Your task to perform on an android device: Open wifi settings Image 0: 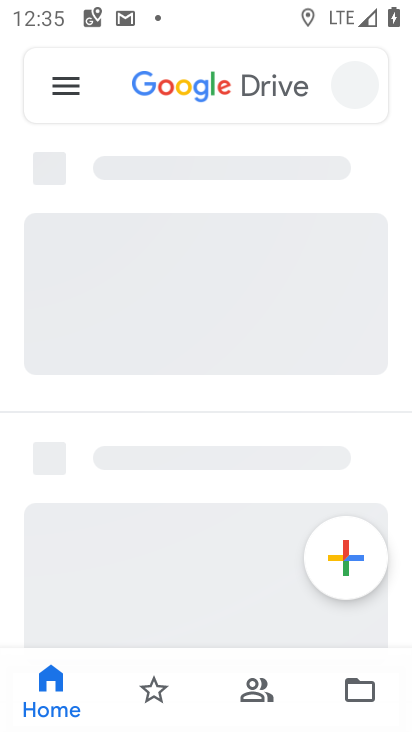
Step 0: drag from (191, 652) to (245, 476)
Your task to perform on an android device: Open wifi settings Image 1: 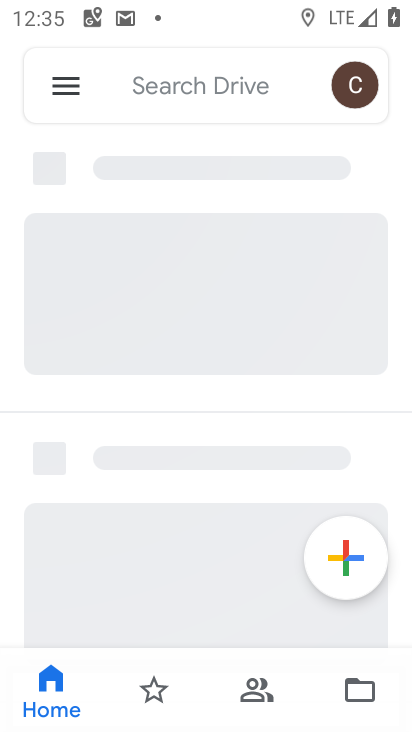
Step 1: press home button
Your task to perform on an android device: Open wifi settings Image 2: 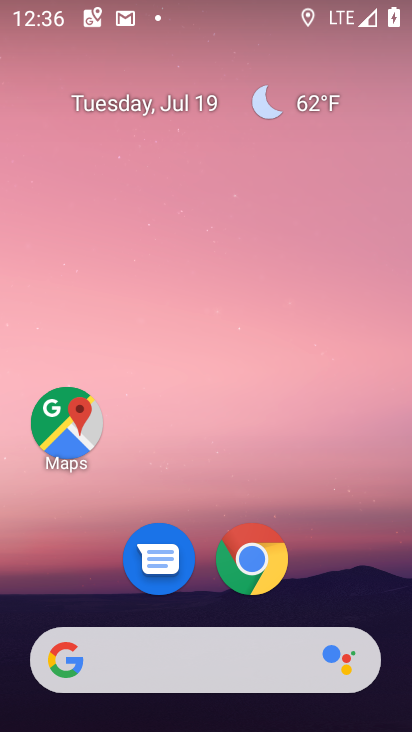
Step 2: drag from (210, 664) to (288, 115)
Your task to perform on an android device: Open wifi settings Image 3: 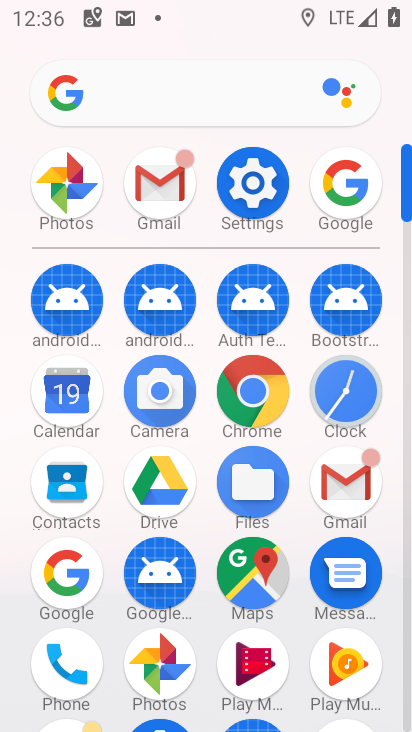
Step 3: click (255, 193)
Your task to perform on an android device: Open wifi settings Image 4: 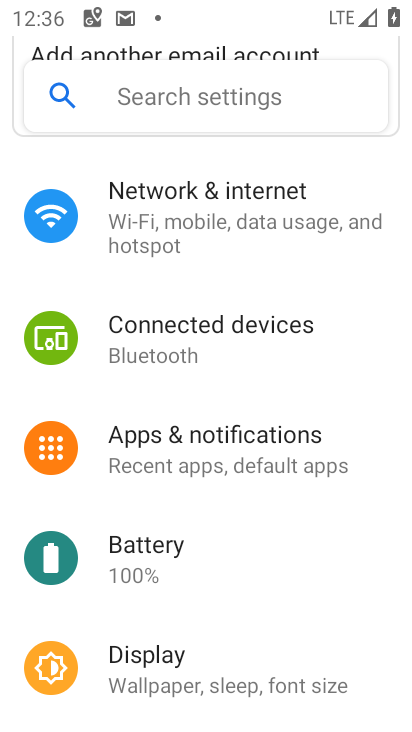
Step 4: click (193, 240)
Your task to perform on an android device: Open wifi settings Image 5: 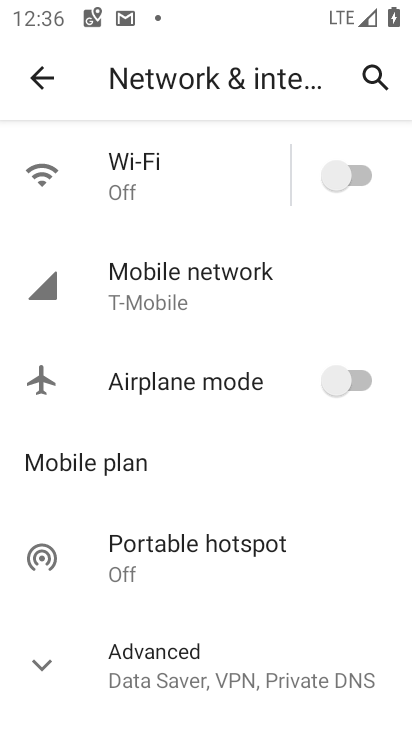
Step 5: click (195, 187)
Your task to perform on an android device: Open wifi settings Image 6: 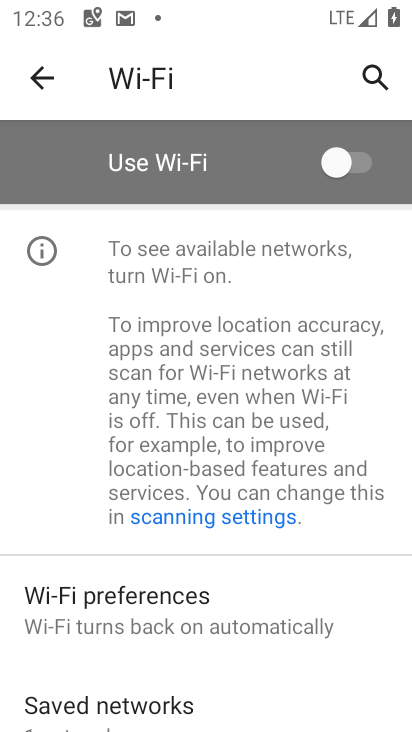
Step 6: task complete